Your task to perform on an android device: clear all cookies in the chrome app Image 0: 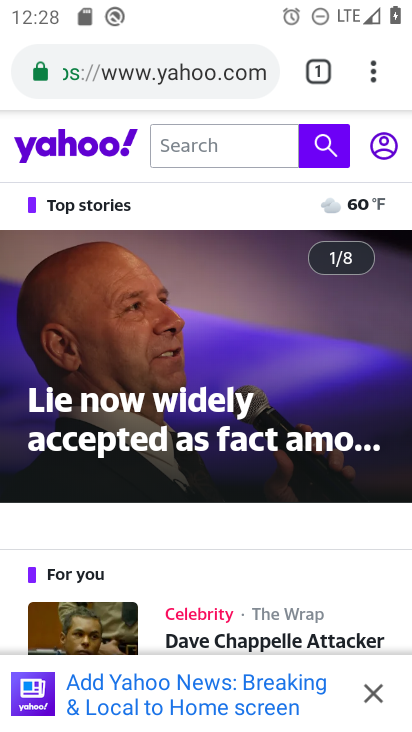
Step 0: click (367, 77)
Your task to perform on an android device: clear all cookies in the chrome app Image 1: 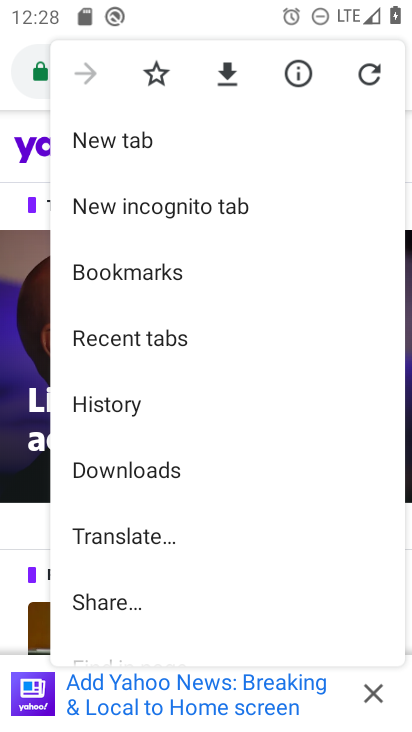
Step 1: click (135, 404)
Your task to perform on an android device: clear all cookies in the chrome app Image 2: 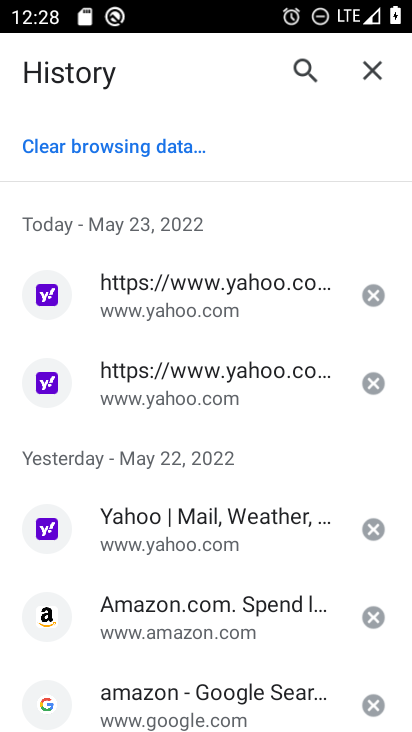
Step 2: click (134, 150)
Your task to perform on an android device: clear all cookies in the chrome app Image 3: 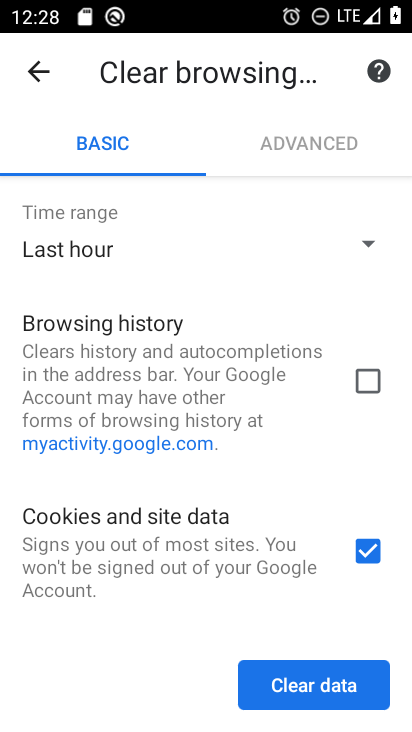
Step 3: click (308, 686)
Your task to perform on an android device: clear all cookies in the chrome app Image 4: 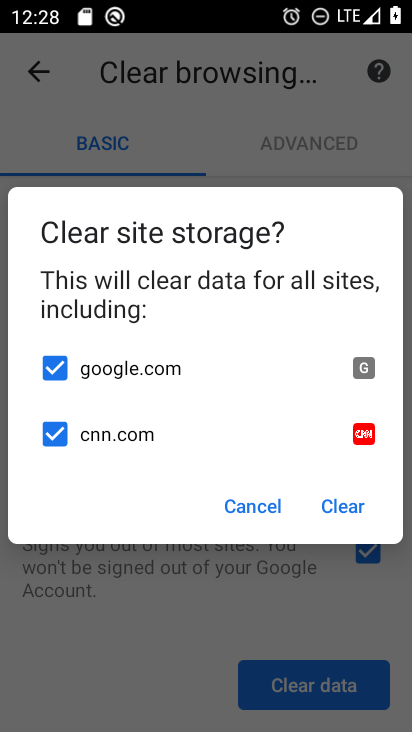
Step 4: click (334, 506)
Your task to perform on an android device: clear all cookies in the chrome app Image 5: 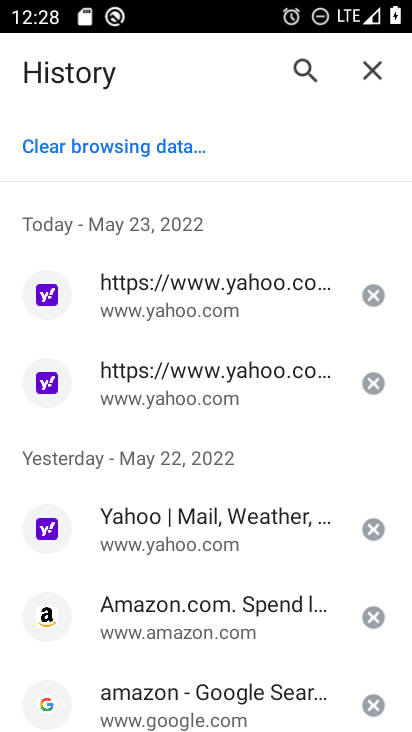
Step 5: task complete